Your task to perform on an android device: What's on Reddit Image 0: 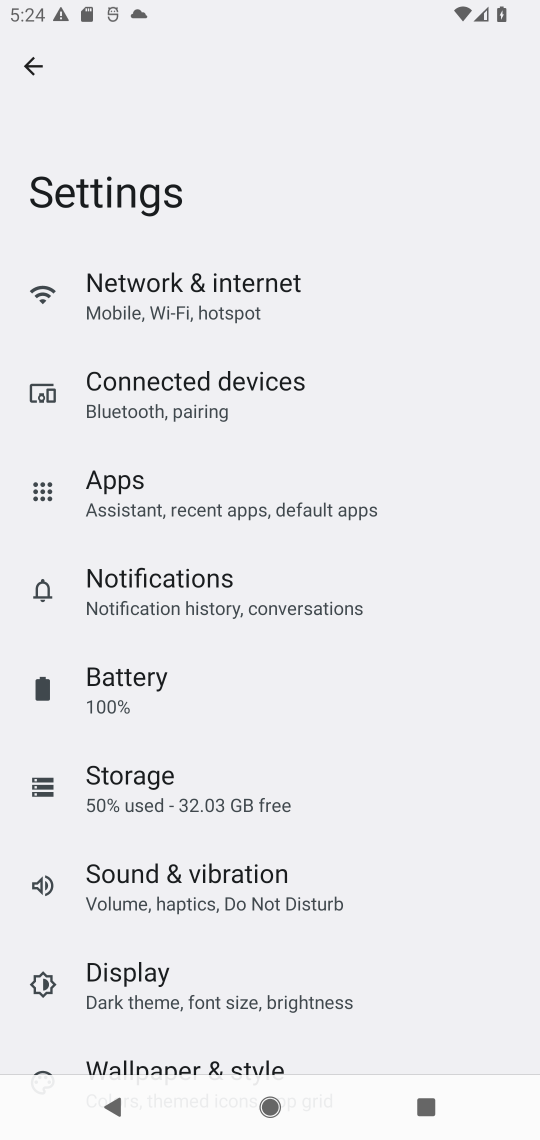
Step 0: press home button
Your task to perform on an android device: What's on Reddit Image 1: 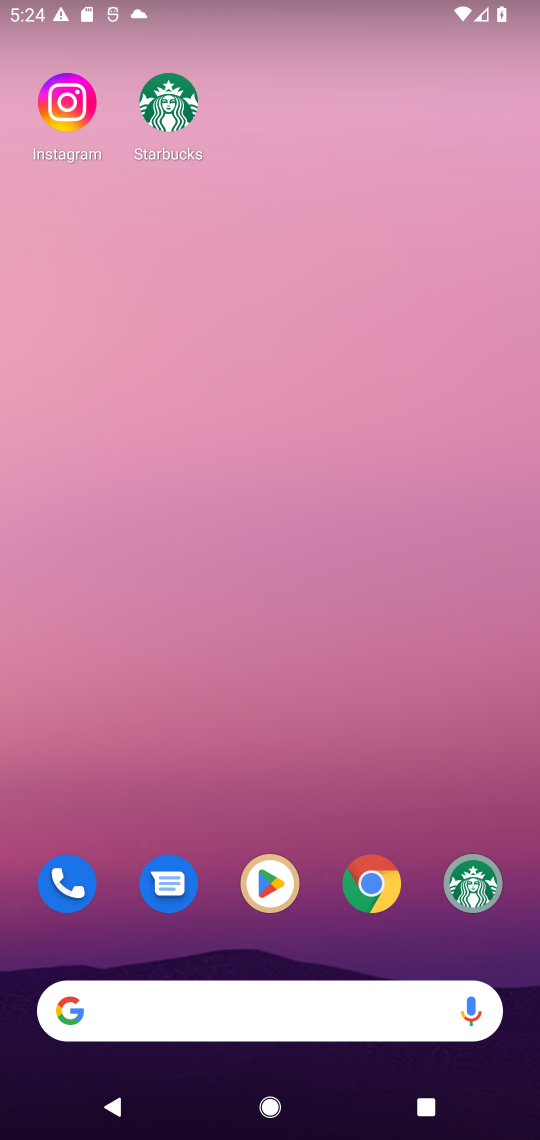
Step 1: drag from (283, 355) to (268, 106)
Your task to perform on an android device: What's on Reddit Image 2: 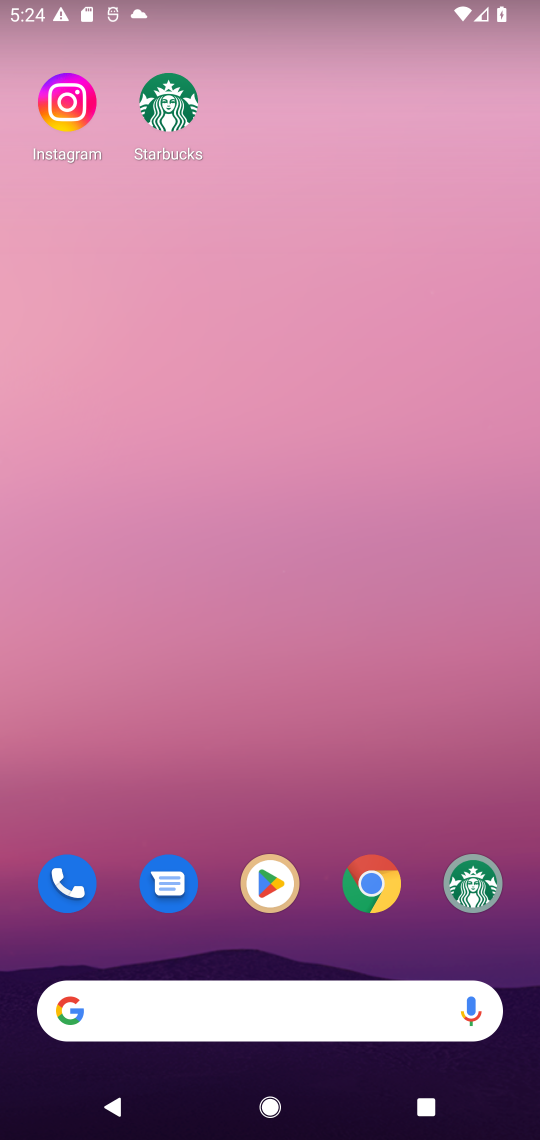
Step 2: drag from (354, 908) to (349, 125)
Your task to perform on an android device: What's on Reddit Image 3: 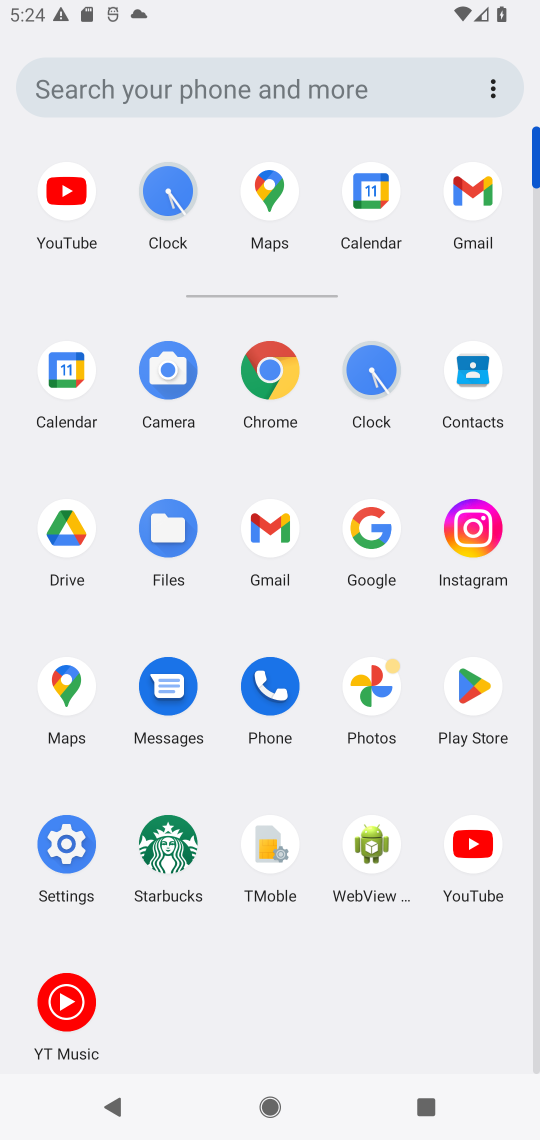
Step 3: click (270, 369)
Your task to perform on an android device: What's on Reddit Image 4: 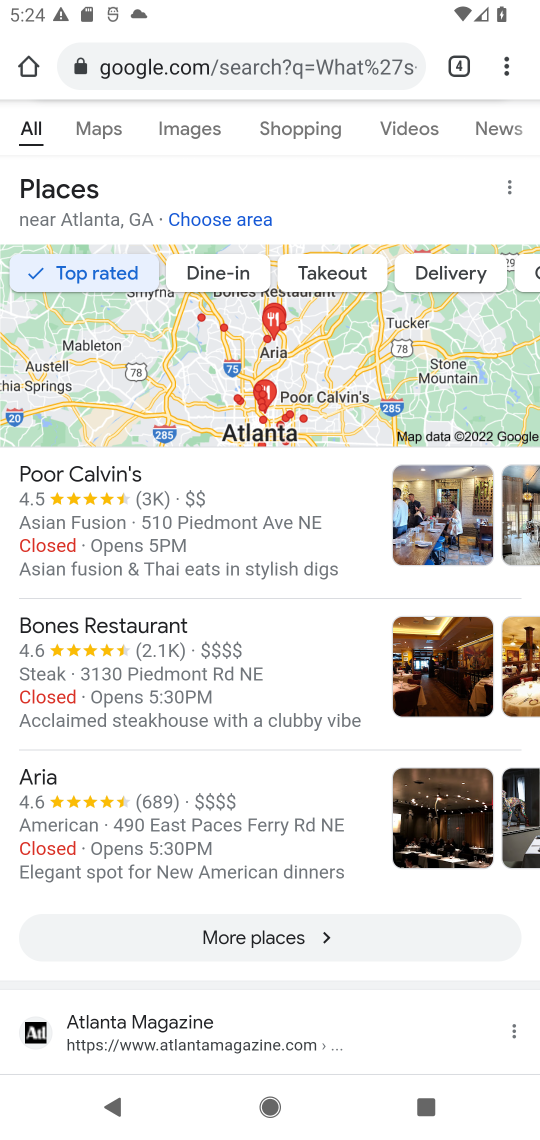
Step 4: click (305, 63)
Your task to perform on an android device: What's on Reddit Image 5: 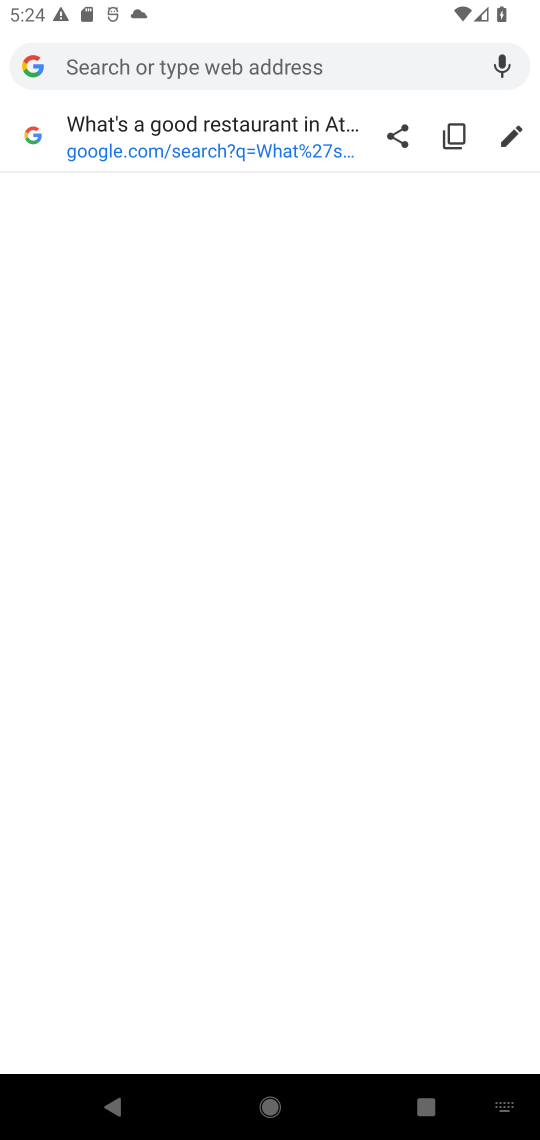
Step 5: type "reddit"
Your task to perform on an android device: What's on Reddit Image 6: 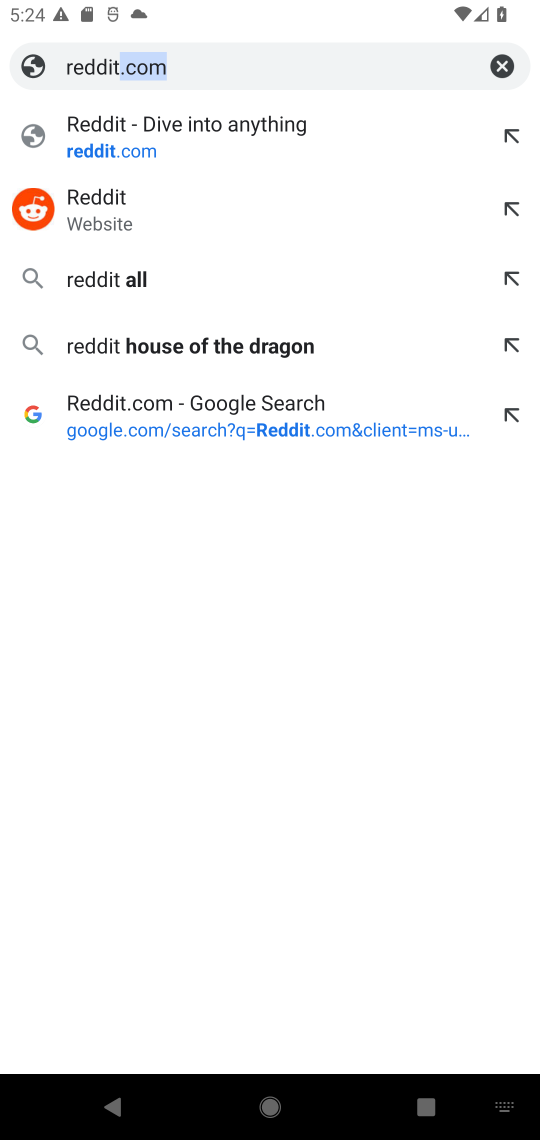
Step 6: click (64, 197)
Your task to perform on an android device: What's on Reddit Image 7: 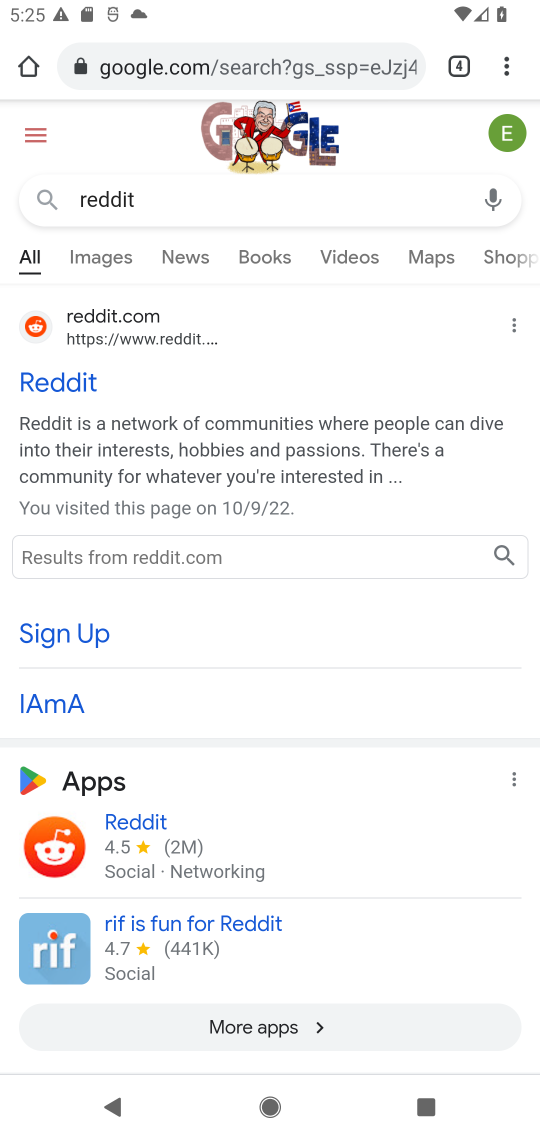
Step 7: click (65, 384)
Your task to perform on an android device: What's on Reddit Image 8: 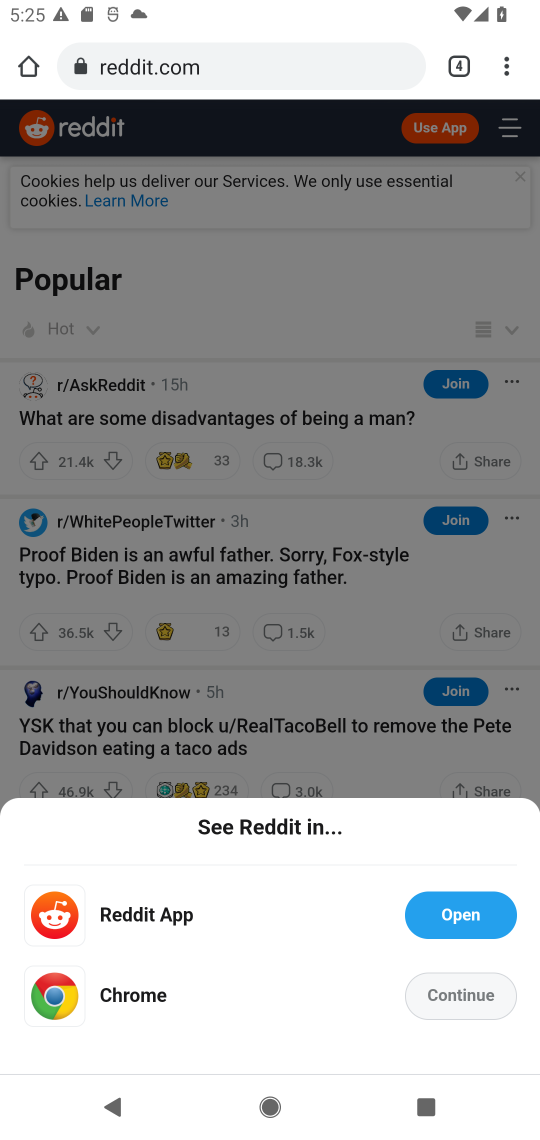
Step 8: click (485, 976)
Your task to perform on an android device: What's on Reddit Image 9: 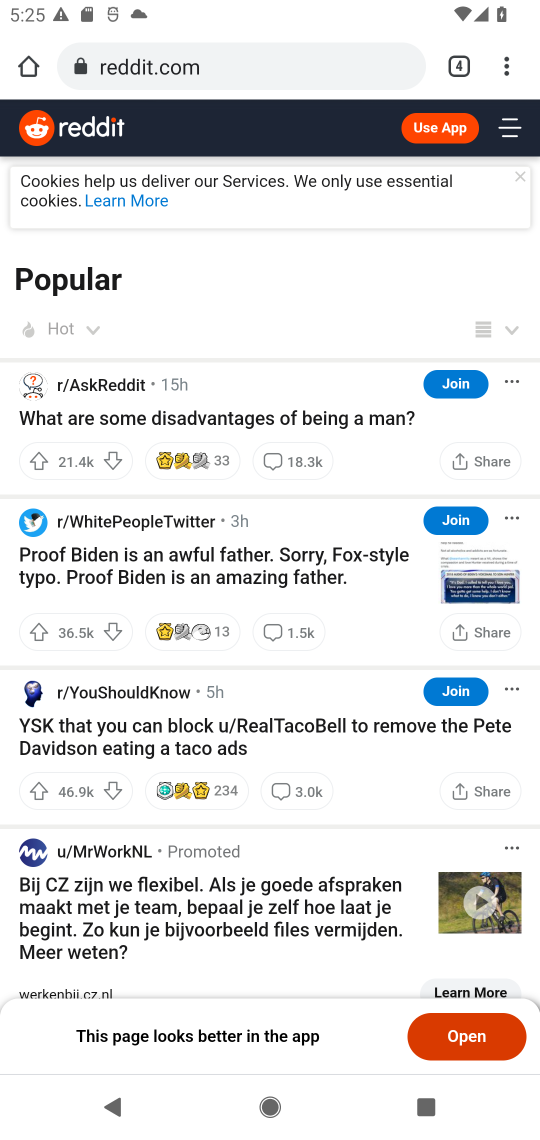
Step 9: task complete